Your task to perform on an android device: Go to calendar. Show me events next week Image 0: 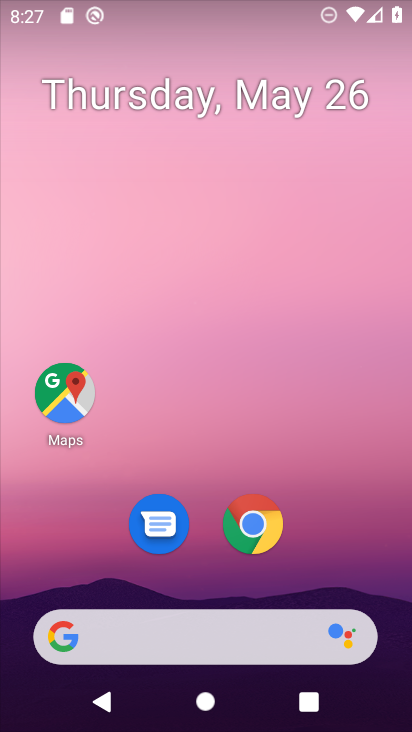
Step 0: drag from (319, 542) to (308, 101)
Your task to perform on an android device: Go to calendar. Show me events next week Image 1: 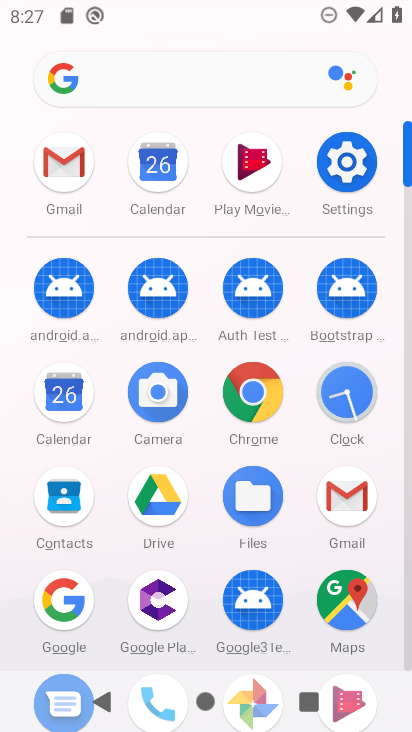
Step 1: click (160, 156)
Your task to perform on an android device: Go to calendar. Show me events next week Image 2: 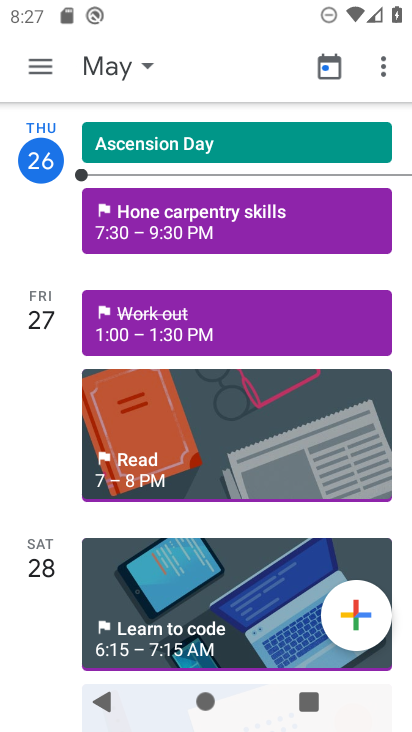
Step 2: click (45, 64)
Your task to perform on an android device: Go to calendar. Show me events next week Image 3: 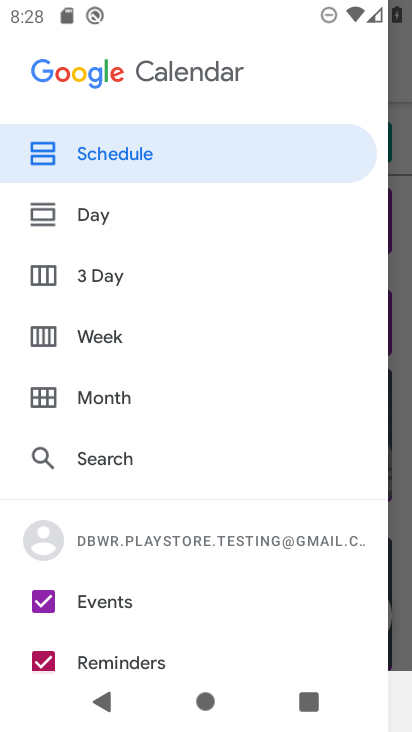
Step 3: click (88, 329)
Your task to perform on an android device: Go to calendar. Show me events next week Image 4: 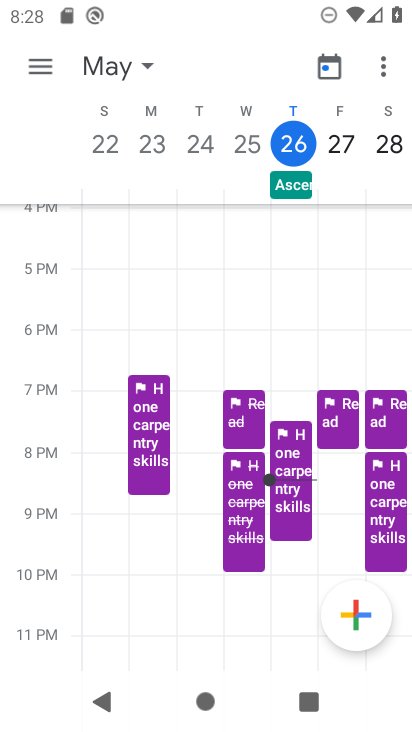
Step 4: task complete